Your task to perform on an android device: Open CNN.com Image 0: 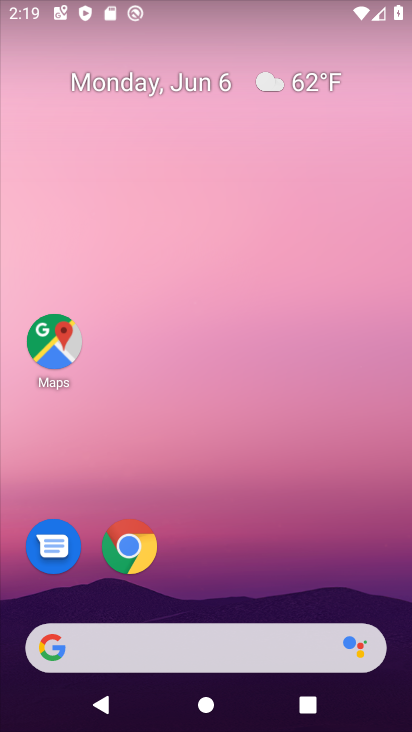
Step 0: drag from (280, 526) to (283, 151)
Your task to perform on an android device: Open CNN.com Image 1: 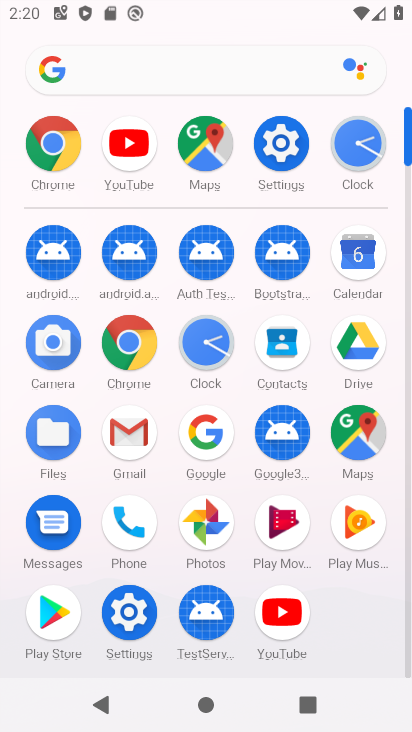
Step 1: click (125, 341)
Your task to perform on an android device: Open CNN.com Image 2: 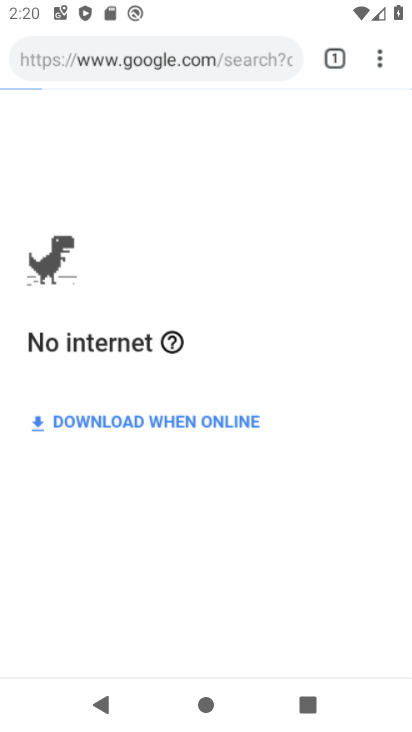
Step 2: click (168, 57)
Your task to perform on an android device: Open CNN.com Image 3: 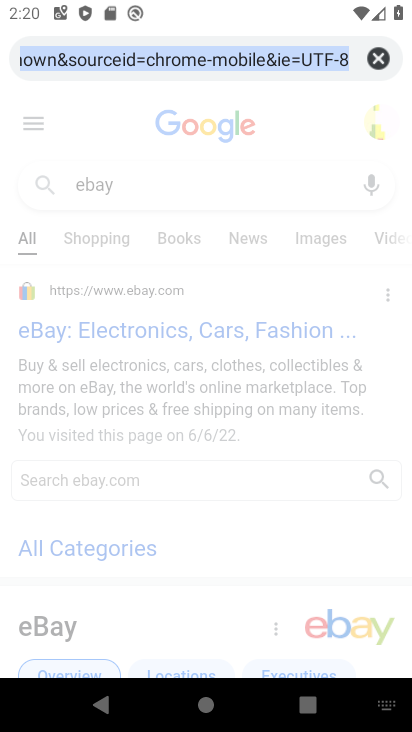
Step 3: type "cnn.com"
Your task to perform on an android device: Open CNN.com Image 4: 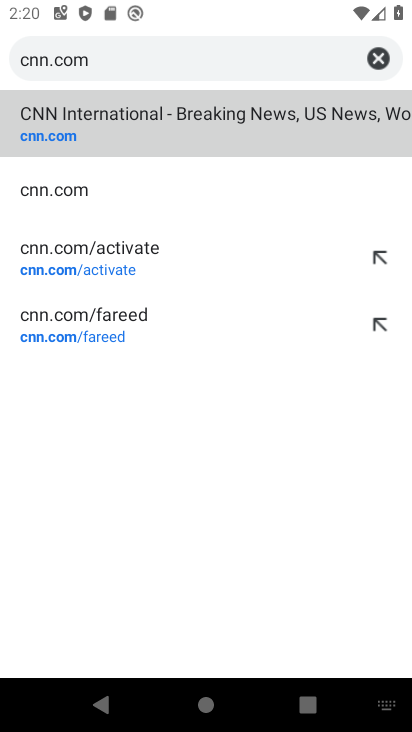
Step 4: click (45, 134)
Your task to perform on an android device: Open CNN.com Image 5: 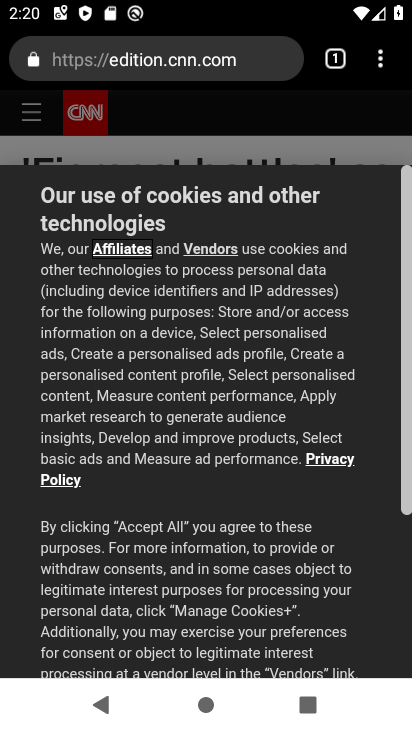
Step 5: task complete